Your task to perform on an android device: star an email in the gmail app Image 0: 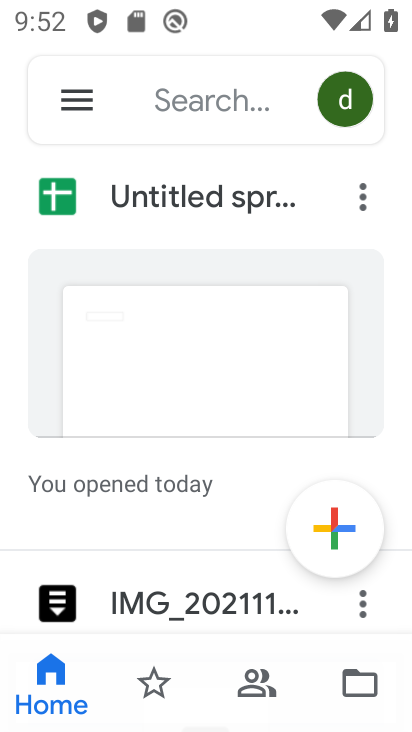
Step 0: press home button
Your task to perform on an android device: star an email in the gmail app Image 1: 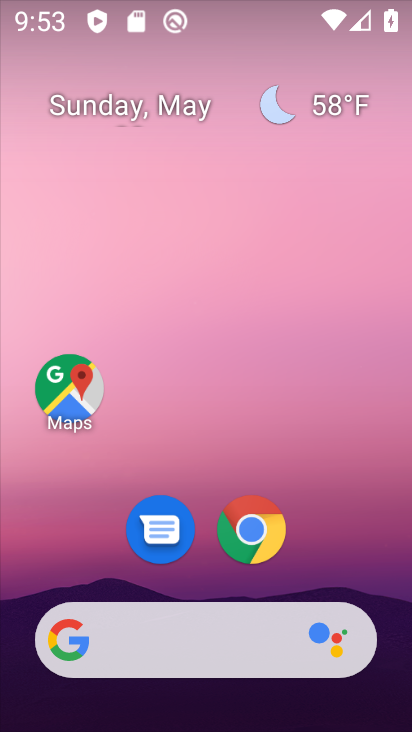
Step 1: drag from (205, 569) to (71, 0)
Your task to perform on an android device: star an email in the gmail app Image 2: 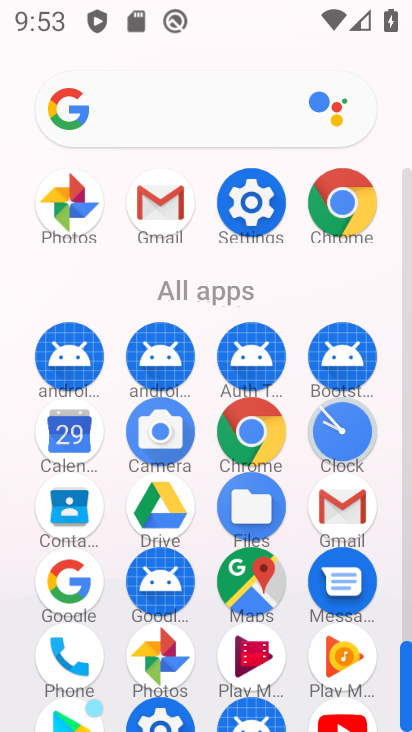
Step 2: click (351, 504)
Your task to perform on an android device: star an email in the gmail app Image 3: 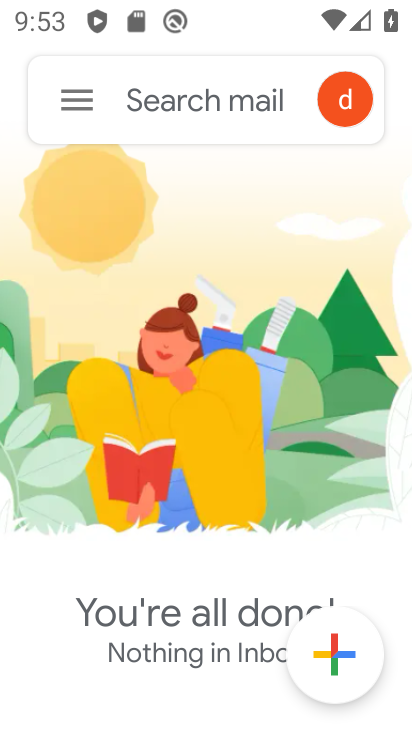
Step 3: click (63, 97)
Your task to perform on an android device: star an email in the gmail app Image 4: 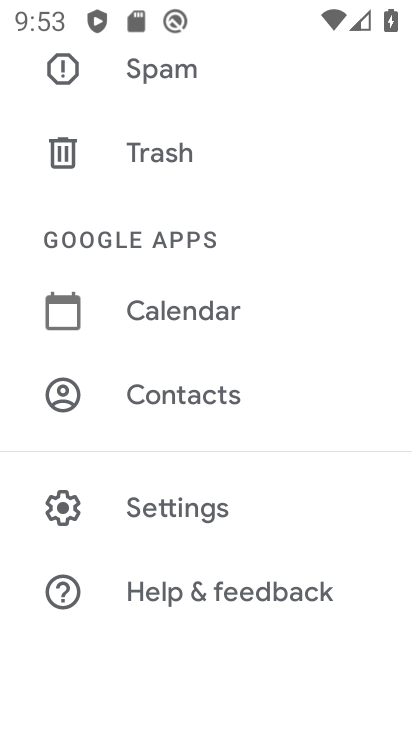
Step 4: drag from (175, 186) to (179, 473)
Your task to perform on an android device: star an email in the gmail app Image 5: 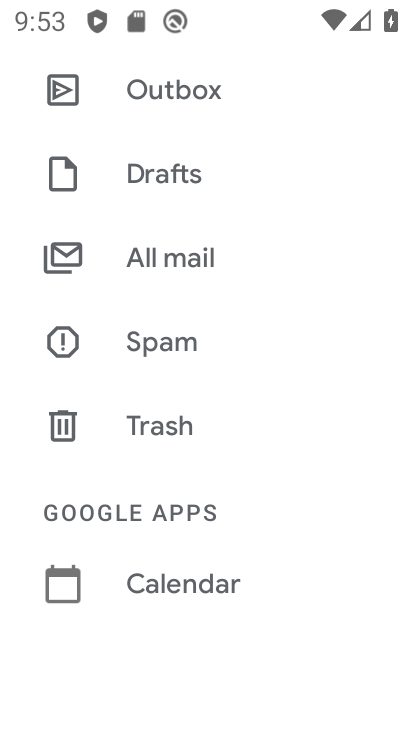
Step 5: click (180, 274)
Your task to perform on an android device: star an email in the gmail app Image 6: 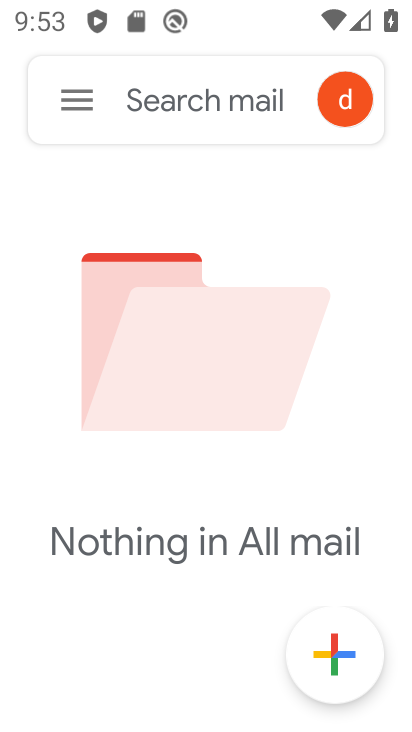
Step 6: task complete